Your task to perform on an android device: Go to Yahoo.com Image 0: 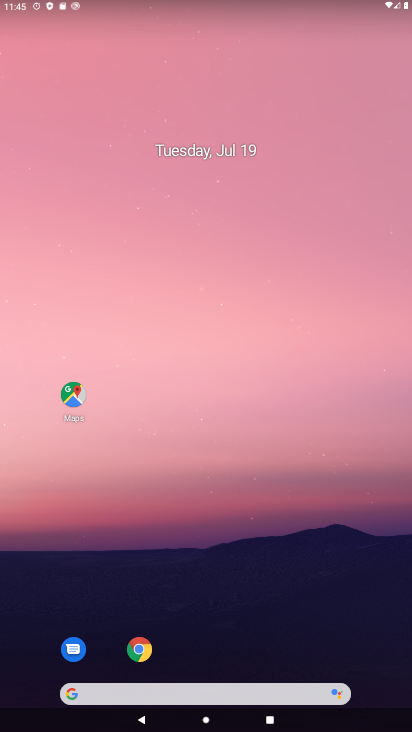
Step 0: drag from (232, 704) to (234, 421)
Your task to perform on an android device: Go to Yahoo.com Image 1: 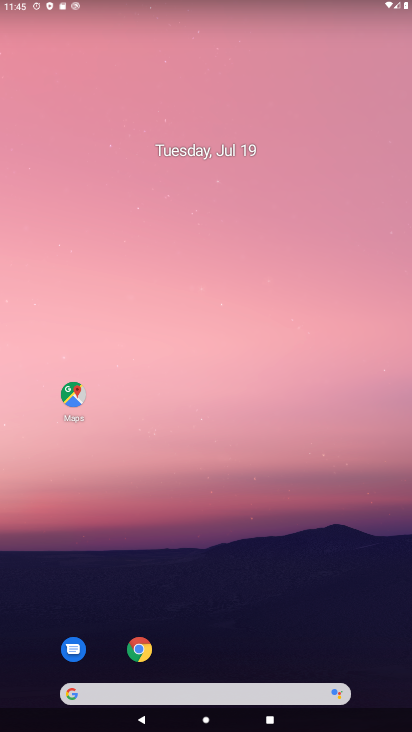
Step 1: drag from (225, 726) to (264, 174)
Your task to perform on an android device: Go to Yahoo.com Image 2: 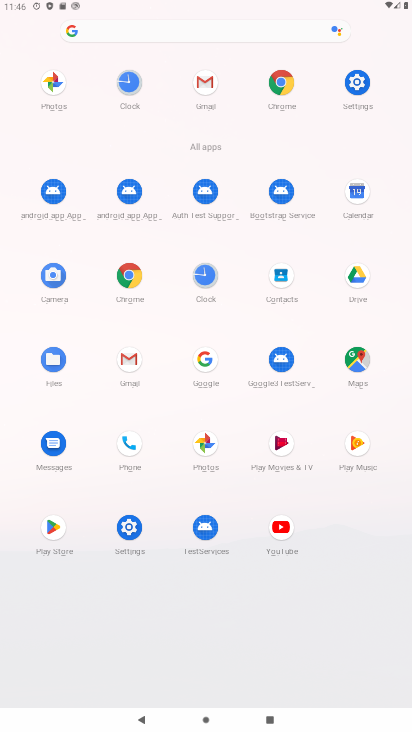
Step 2: click (122, 272)
Your task to perform on an android device: Go to Yahoo.com Image 3: 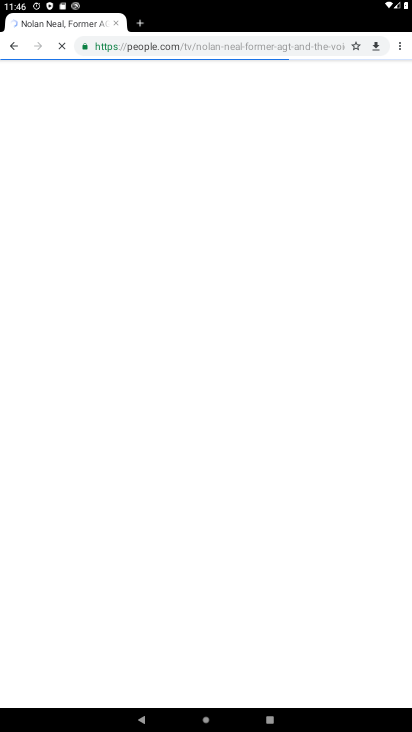
Step 3: click (397, 45)
Your task to perform on an android device: Go to Yahoo.com Image 4: 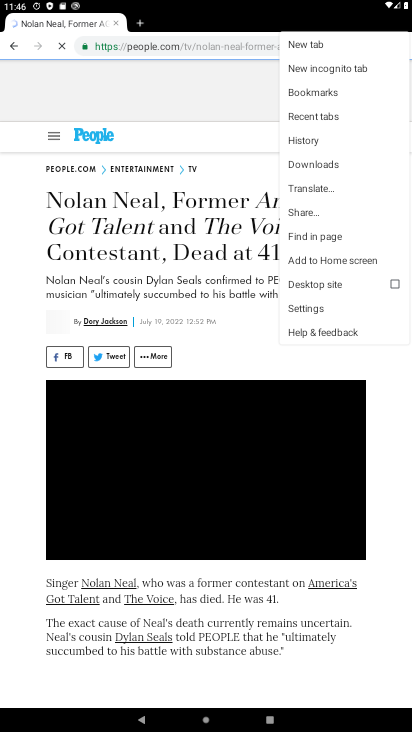
Step 4: click (304, 44)
Your task to perform on an android device: Go to Yahoo.com Image 5: 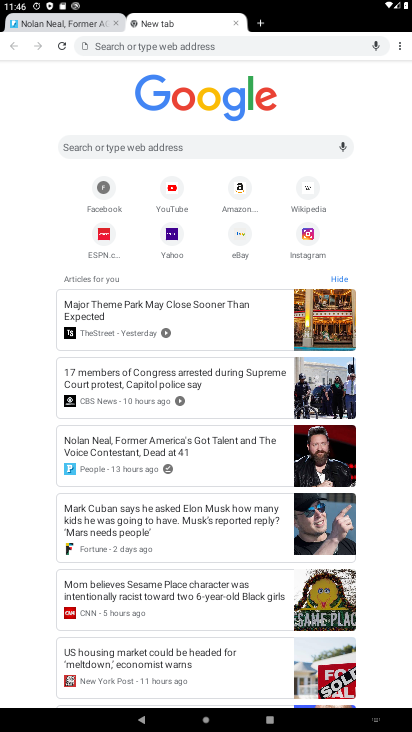
Step 5: click (171, 231)
Your task to perform on an android device: Go to Yahoo.com Image 6: 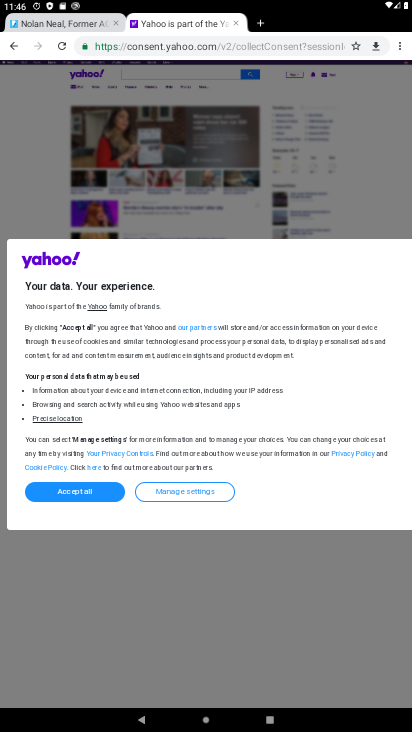
Step 6: task complete